Your task to perform on an android device: turn on improve location accuracy Image 0: 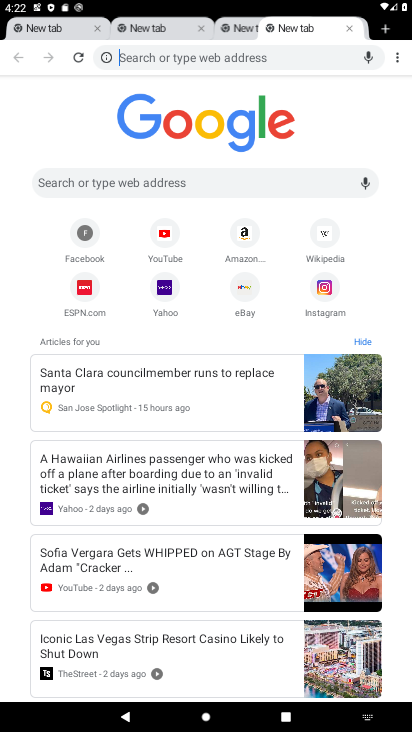
Step 0: press home button
Your task to perform on an android device: turn on improve location accuracy Image 1: 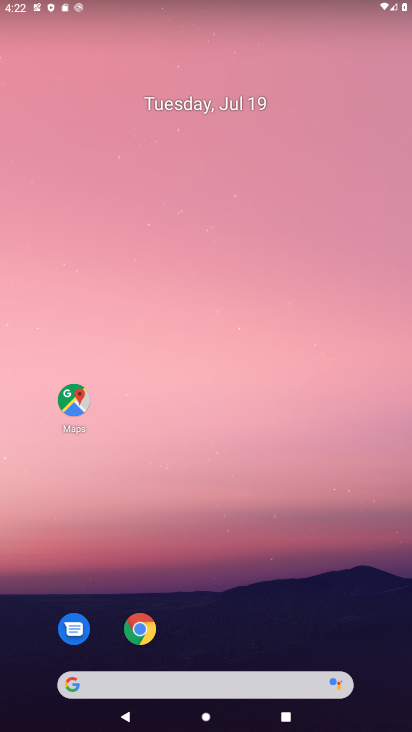
Step 1: drag from (159, 664) to (187, 351)
Your task to perform on an android device: turn on improve location accuracy Image 2: 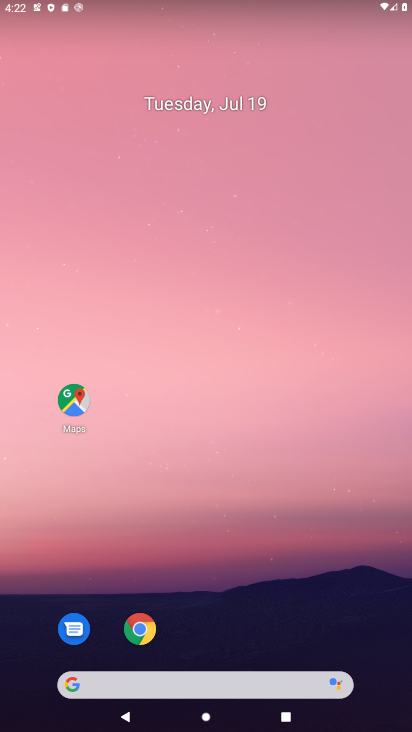
Step 2: drag from (215, 648) to (214, 241)
Your task to perform on an android device: turn on improve location accuracy Image 3: 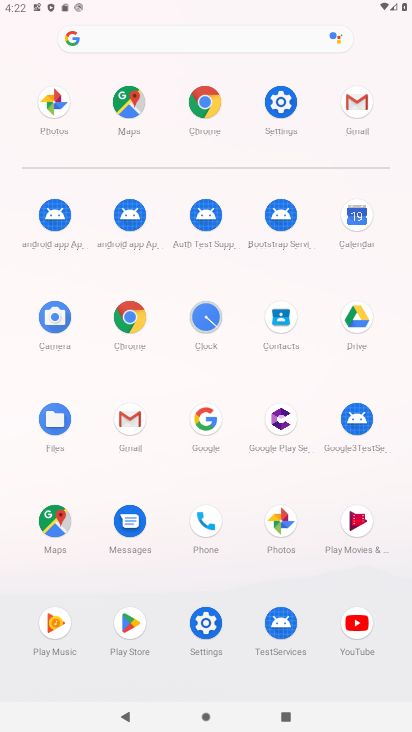
Step 3: click (274, 103)
Your task to perform on an android device: turn on improve location accuracy Image 4: 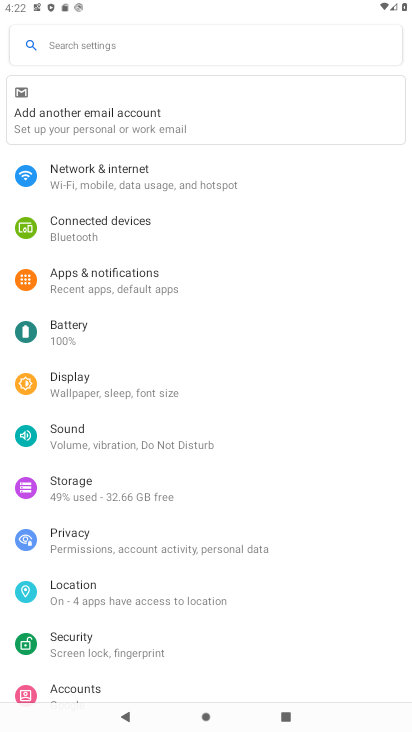
Step 4: click (77, 597)
Your task to perform on an android device: turn on improve location accuracy Image 5: 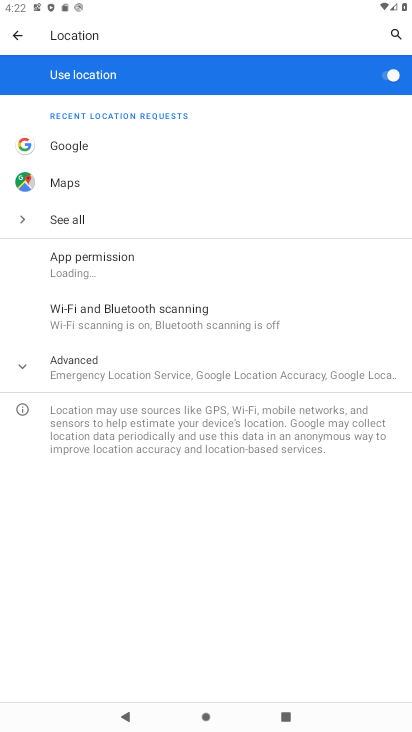
Step 5: click (122, 349)
Your task to perform on an android device: turn on improve location accuracy Image 6: 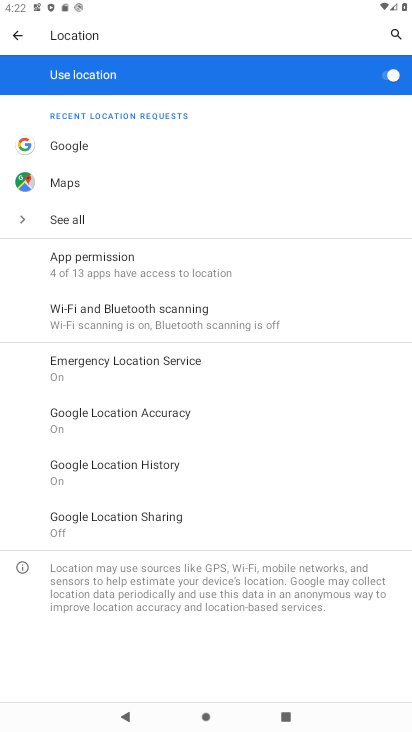
Step 6: click (90, 418)
Your task to perform on an android device: turn on improve location accuracy Image 7: 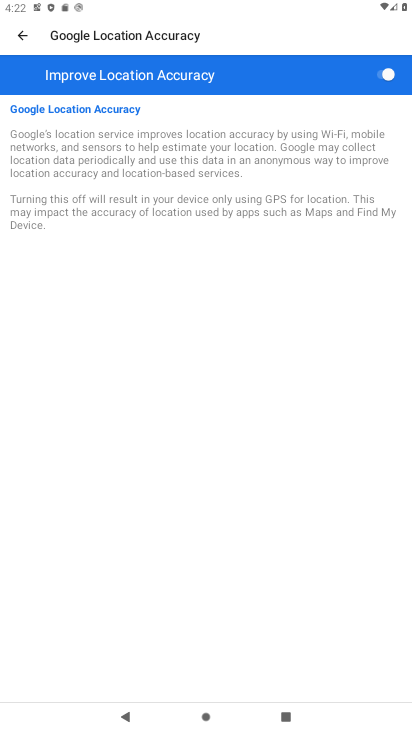
Step 7: task complete